Your task to perform on an android device: Open Chrome and go to settings Image 0: 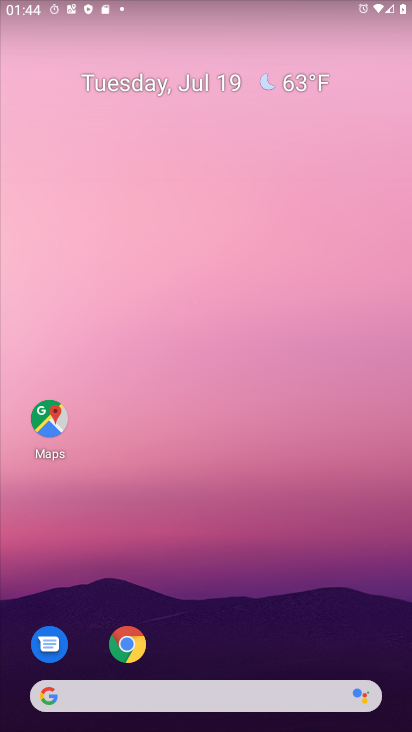
Step 0: drag from (182, 717) to (170, 208)
Your task to perform on an android device: Open Chrome and go to settings Image 1: 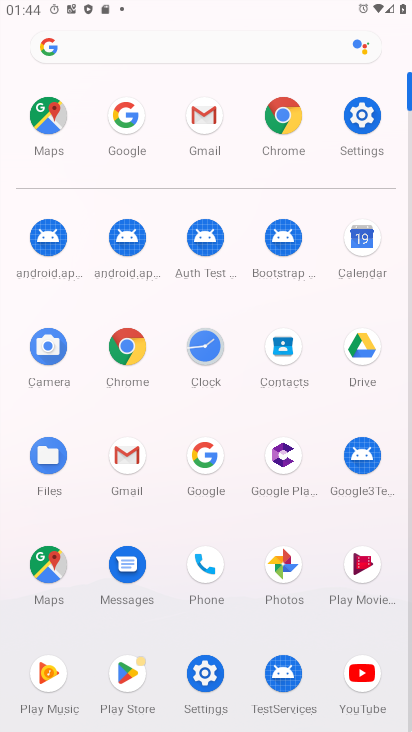
Step 1: click (124, 350)
Your task to perform on an android device: Open Chrome and go to settings Image 2: 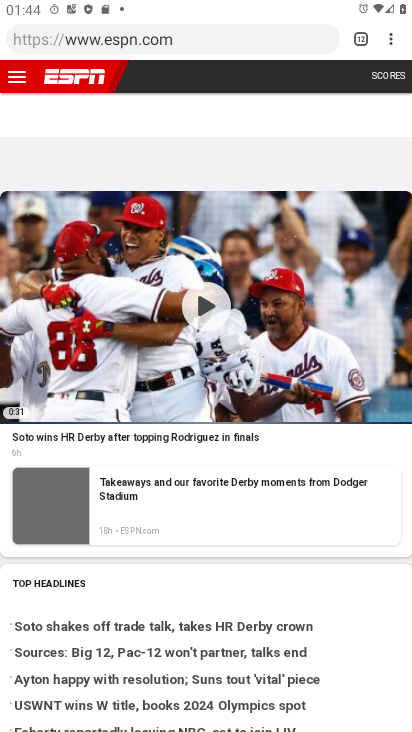
Step 2: click (390, 45)
Your task to perform on an android device: Open Chrome and go to settings Image 3: 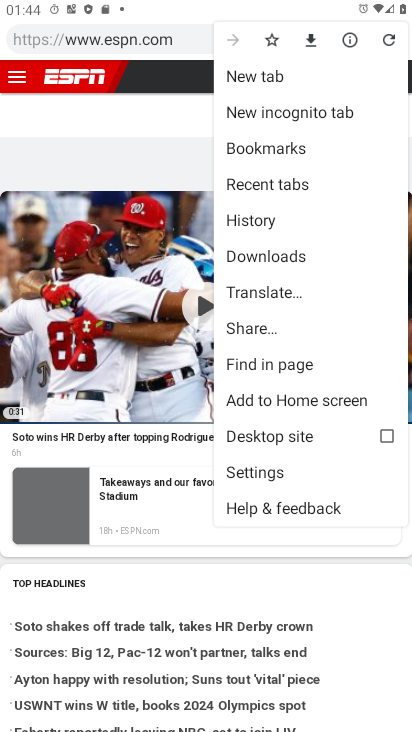
Step 3: click (246, 472)
Your task to perform on an android device: Open Chrome and go to settings Image 4: 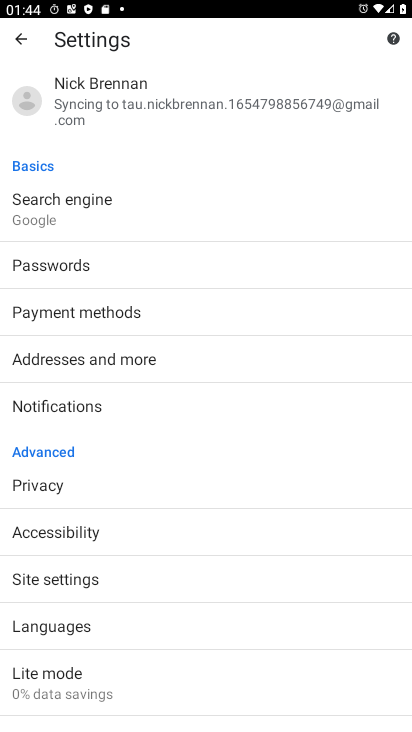
Step 4: task complete